Your task to perform on an android device: Go to eBay Image 0: 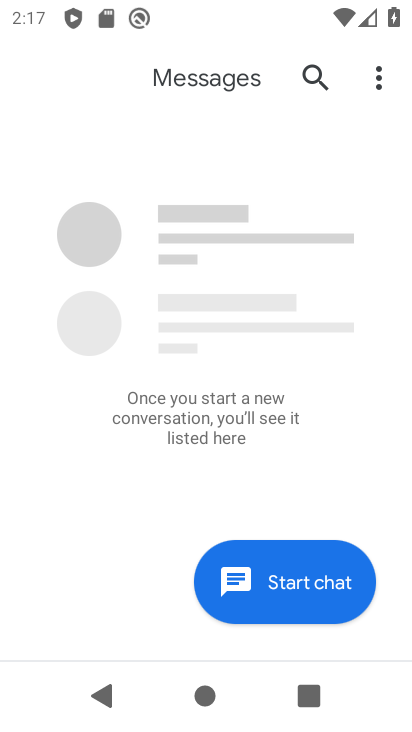
Step 0: press home button
Your task to perform on an android device: Go to eBay Image 1: 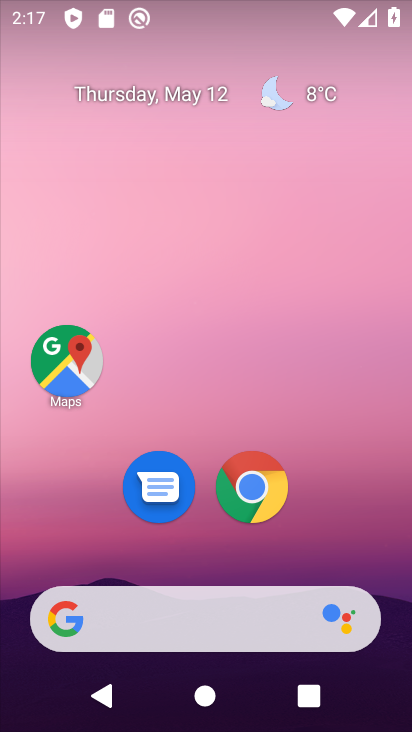
Step 1: click (161, 615)
Your task to perform on an android device: Go to eBay Image 2: 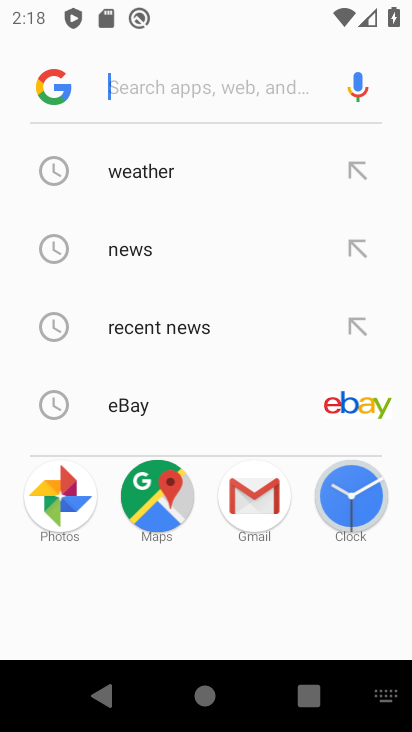
Step 2: click (141, 405)
Your task to perform on an android device: Go to eBay Image 3: 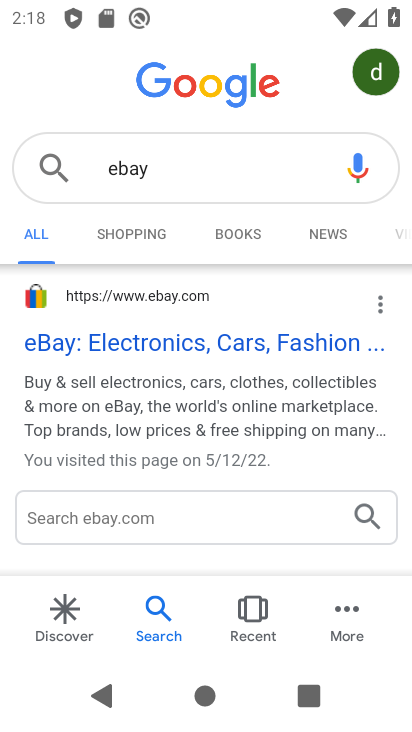
Step 3: click (191, 343)
Your task to perform on an android device: Go to eBay Image 4: 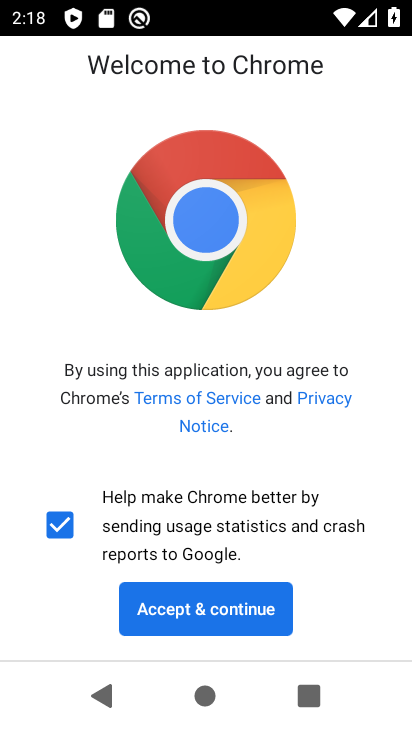
Step 4: click (255, 613)
Your task to perform on an android device: Go to eBay Image 5: 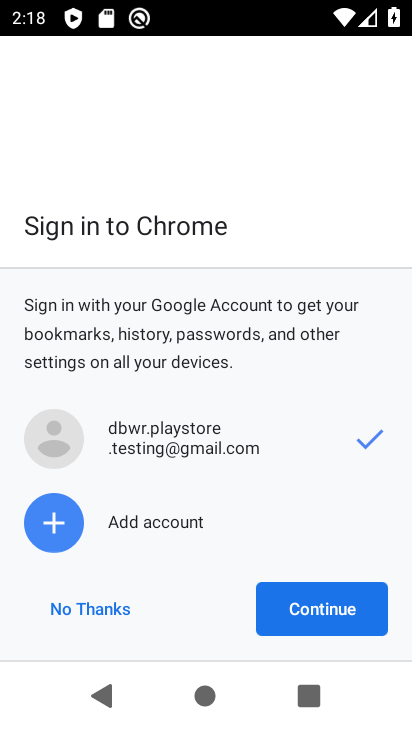
Step 5: click (349, 603)
Your task to perform on an android device: Go to eBay Image 6: 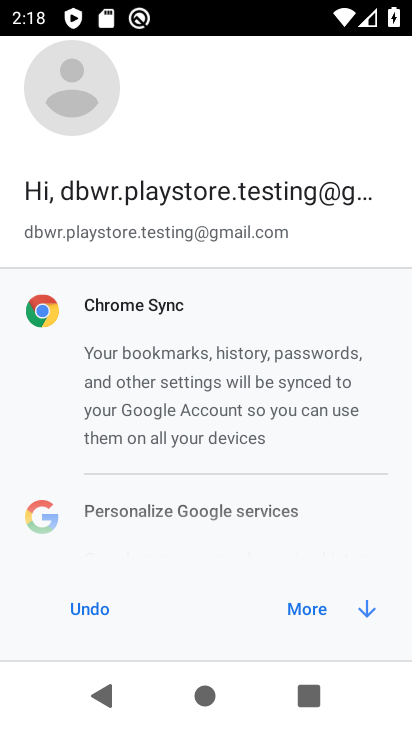
Step 6: click (306, 601)
Your task to perform on an android device: Go to eBay Image 7: 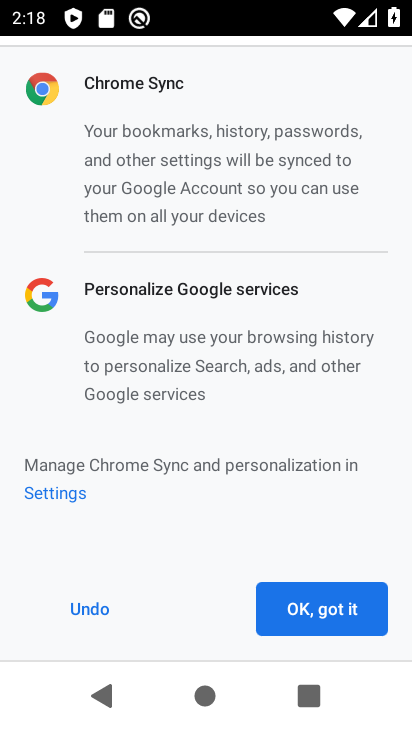
Step 7: click (306, 601)
Your task to perform on an android device: Go to eBay Image 8: 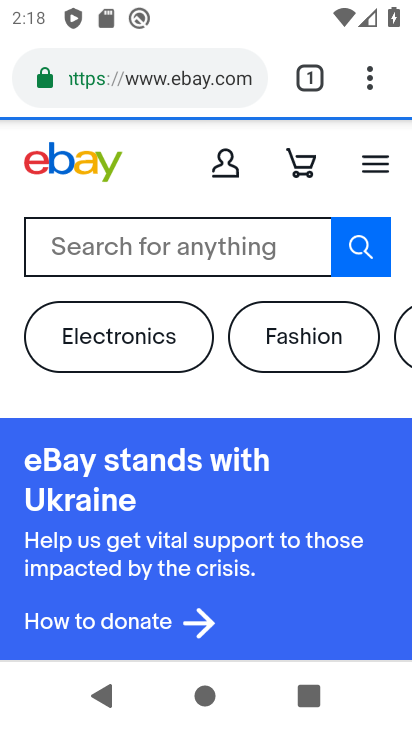
Step 8: click (291, 624)
Your task to perform on an android device: Go to eBay Image 9: 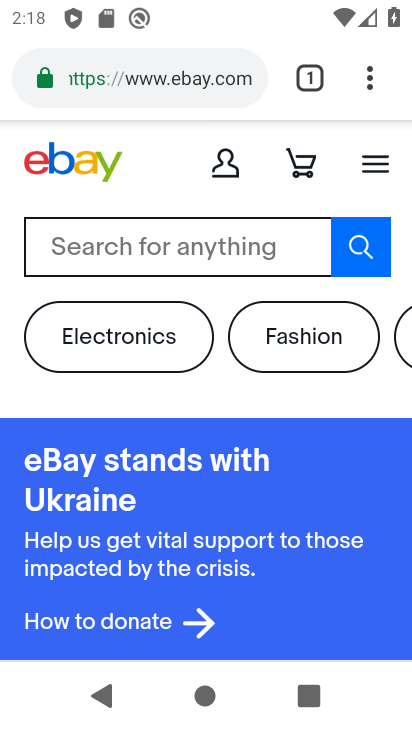
Step 9: task complete